Your task to perform on an android device: View the shopping cart on costco.com. Search for "macbook pro 13 inch" on costco.com, select the first entry, add it to the cart, then select checkout. Image 0: 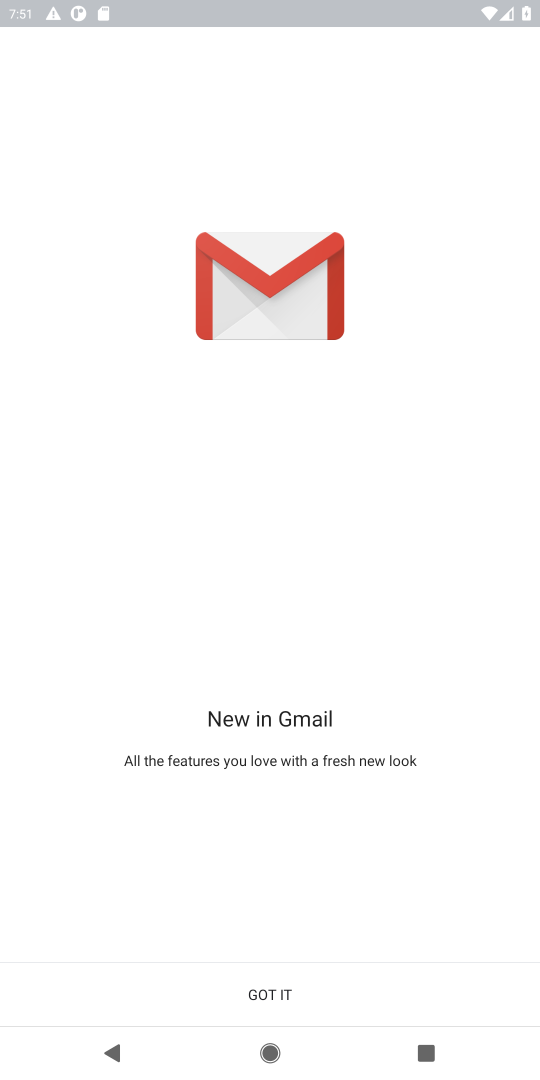
Step 0: press home button
Your task to perform on an android device: View the shopping cart on costco.com. Search for "macbook pro 13 inch" on costco.com, select the first entry, add it to the cart, then select checkout. Image 1: 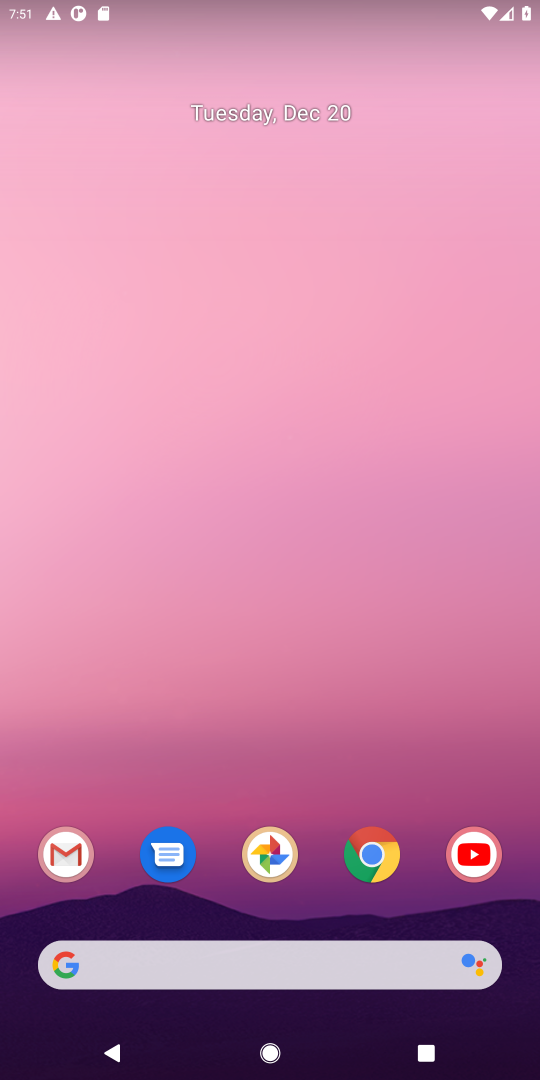
Step 1: click (371, 862)
Your task to perform on an android device: View the shopping cart on costco.com. Search for "macbook pro 13 inch" on costco.com, select the first entry, add it to the cart, then select checkout. Image 2: 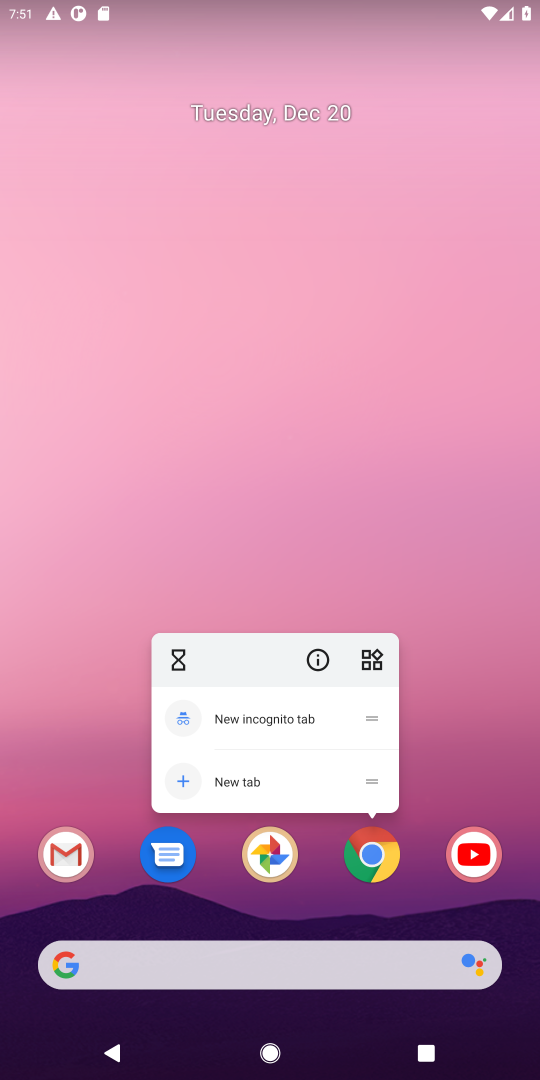
Step 2: click (371, 862)
Your task to perform on an android device: View the shopping cart on costco.com. Search for "macbook pro 13 inch" on costco.com, select the first entry, add it to the cart, then select checkout. Image 3: 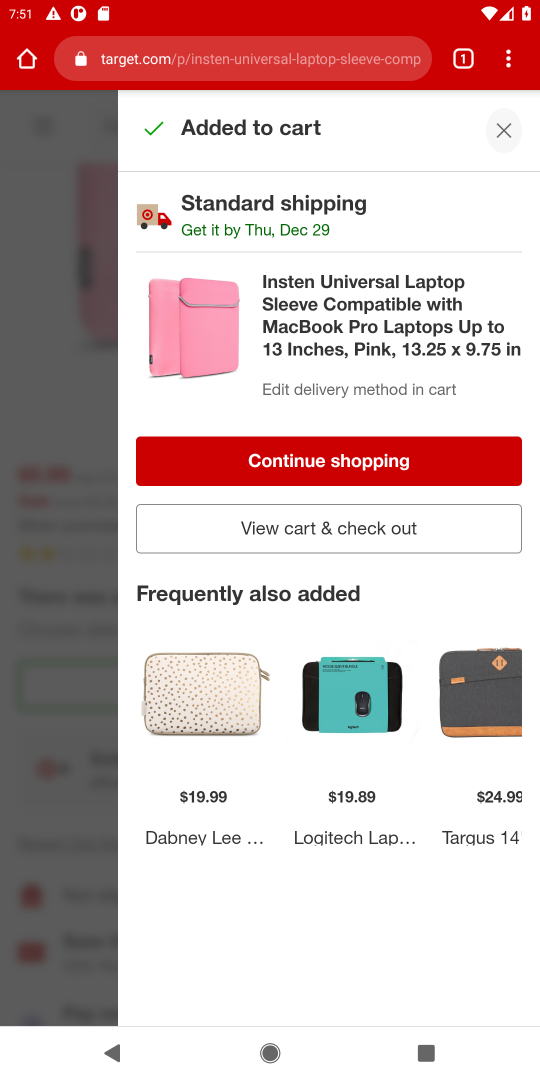
Step 3: click (153, 60)
Your task to perform on an android device: View the shopping cart on costco.com. Search for "macbook pro 13 inch" on costco.com, select the first entry, add it to the cart, then select checkout. Image 4: 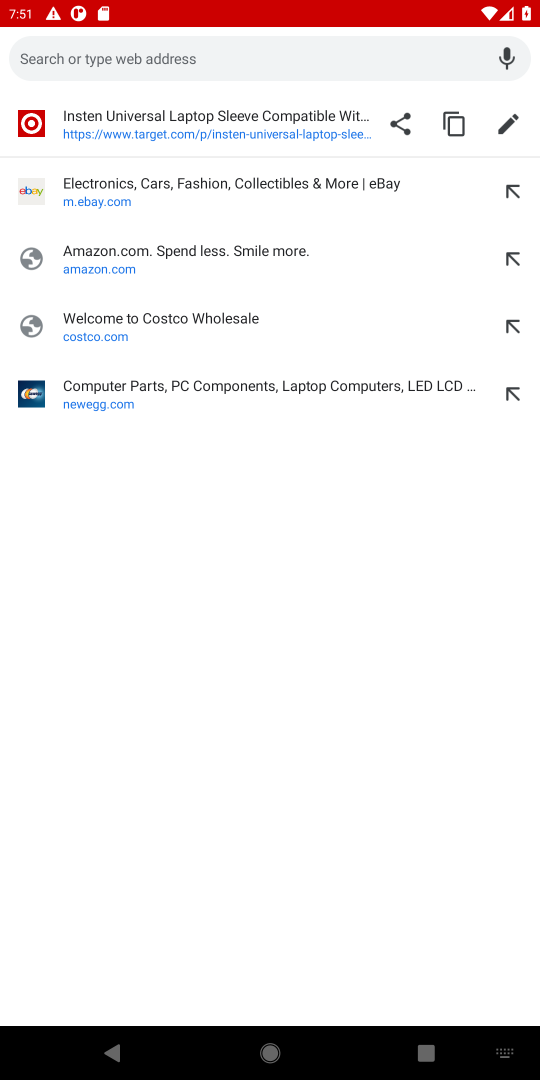
Step 4: click (90, 331)
Your task to perform on an android device: View the shopping cart on costco.com. Search for "macbook pro 13 inch" on costco.com, select the first entry, add it to the cart, then select checkout. Image 5: 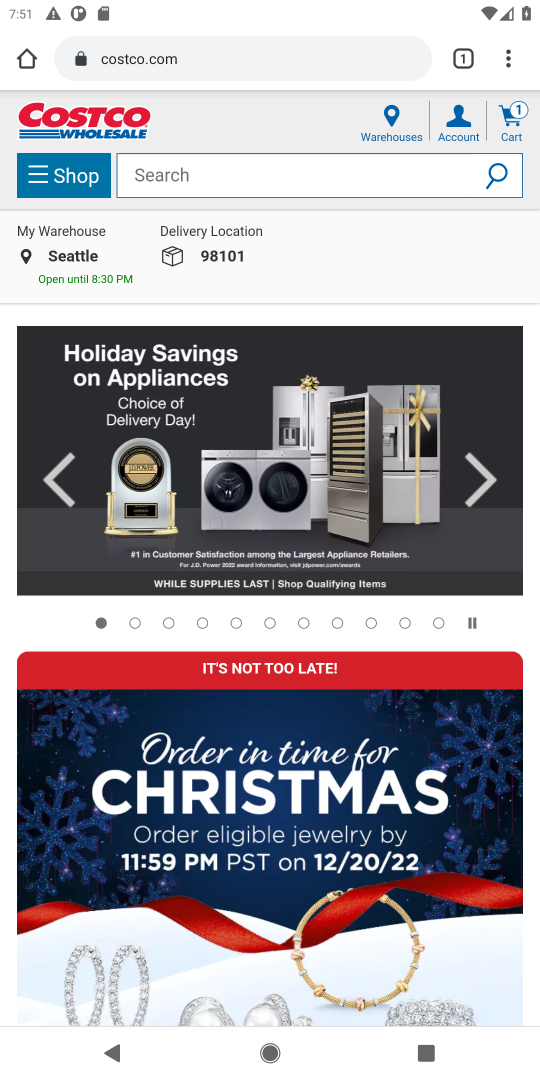
Step 5: click (503, 125)
Your task to perform on an android device: View the shopping cart on costco.com. Search for "macbook pro 13 inch" on costco.com, select the first entry, add it to the cart, then select checkout. Image 6: 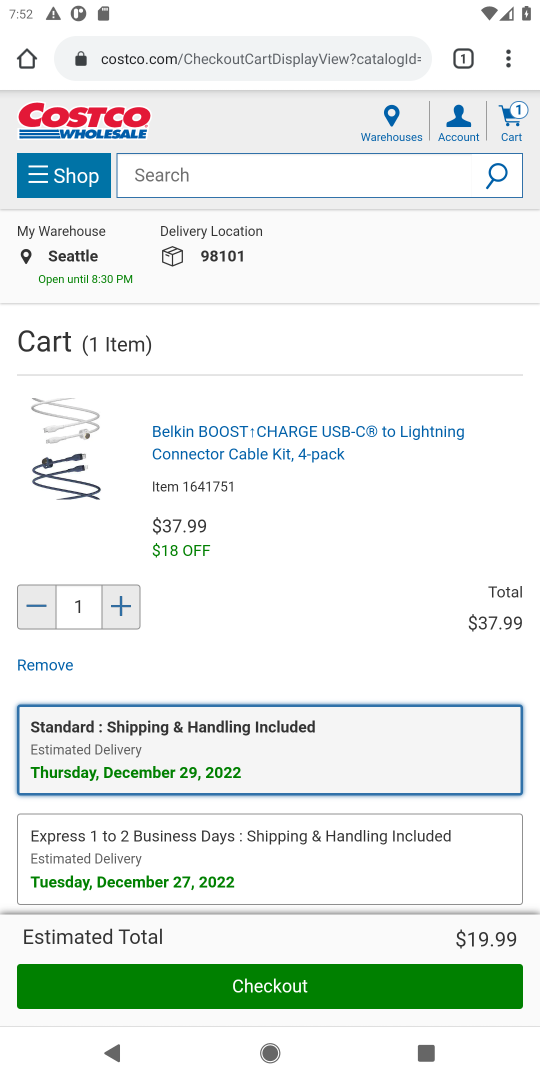
Step 6: click (173, 168)
Your task to perform on an android device: View the shopping cart on costco.com. Search for "macbook pro 13 inch" on costco.com, select the first entry, add it to the cart, then select checkout. Image 7: 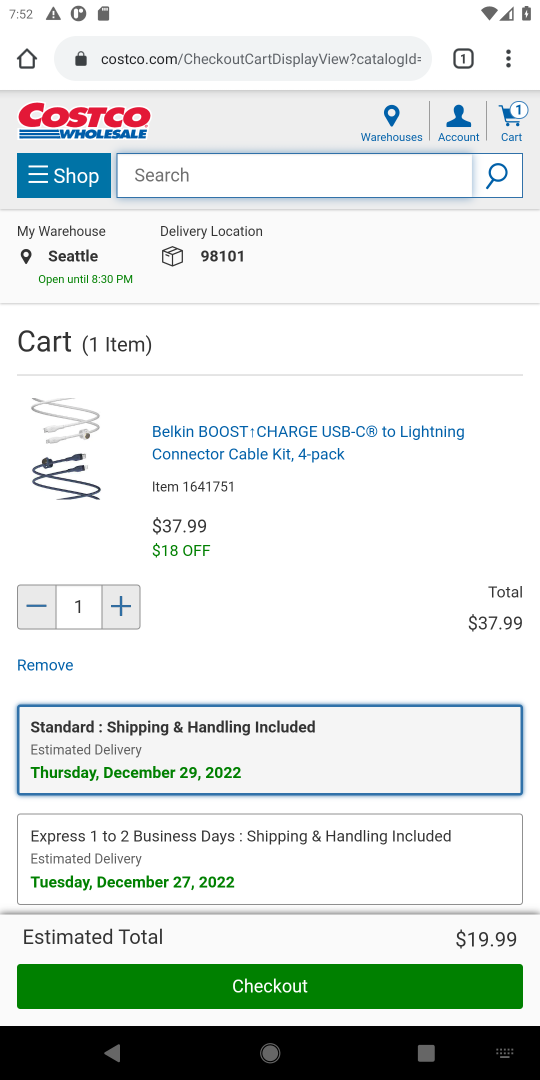
Step 7: type "macbook pro 13 inch"
Your task to perform on an android device: View the shopping cart on costco.com. Search for "macbook pro 13 inch" on costco.com, select the first entry, add it to the cart, then select checkout. Image 8: 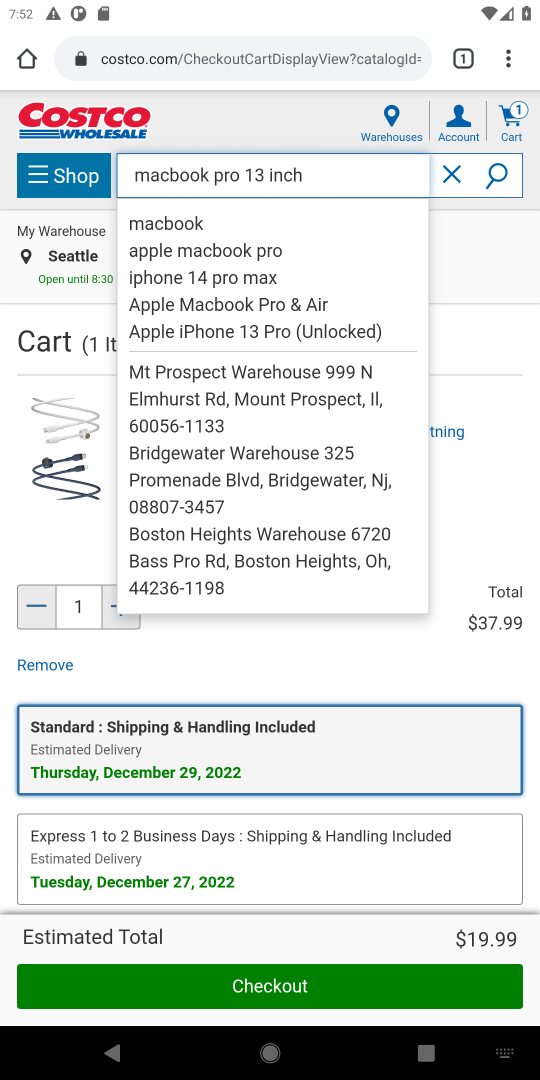
Step 8: click (505, 183)
Your task to perform on an android device: View the shopping cart on costco.com. Search for "macbook pro 13 inch" on costco.com, select the first entry, add it to the cart, then select checkout. Image 9: 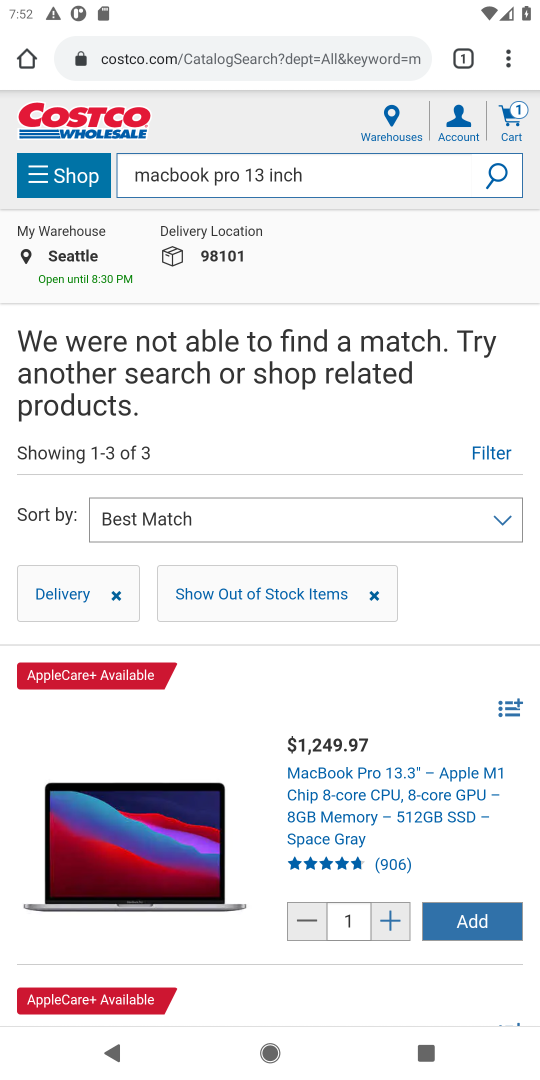
Step 9: task complete